Your task to perform on an android device: Open the stopwatch Image 0: 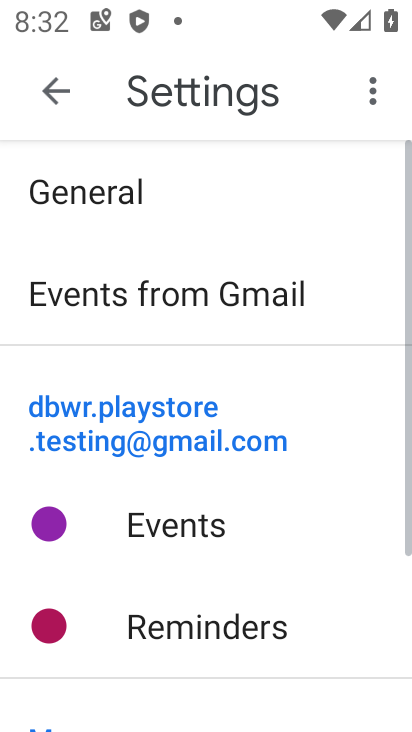
Step 0: press home button
Your task to perform on an android device: Open the stopwatch Image 1: 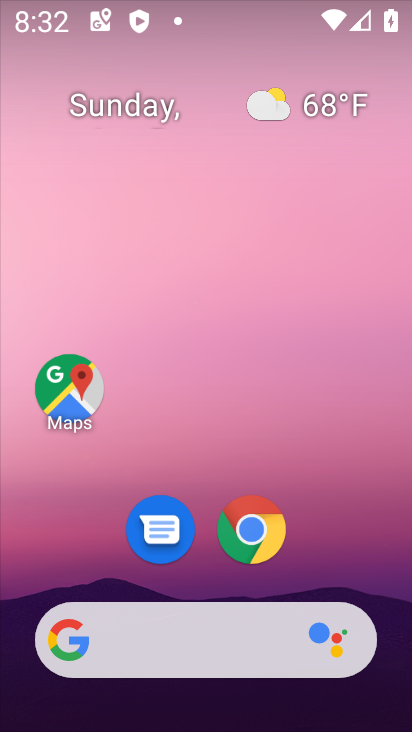
Step 1: drag from (206, 575) to (214, 92)
Your task to perform on an android device: Open the stopwatch Image 2: 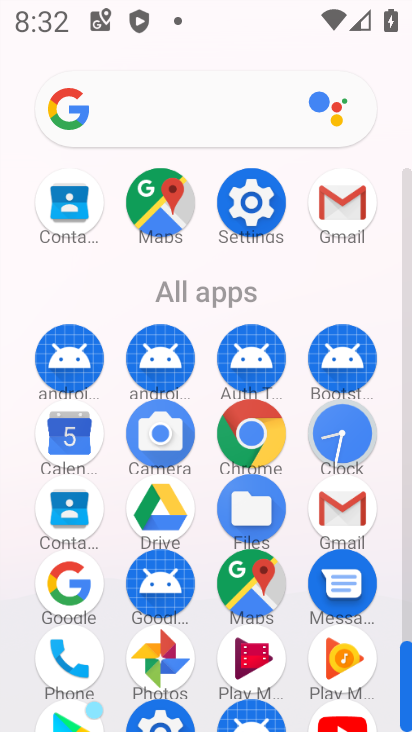
Step 2: click (339, 426)
Your task to perform on an android device: Open the stopwatch Image 3: 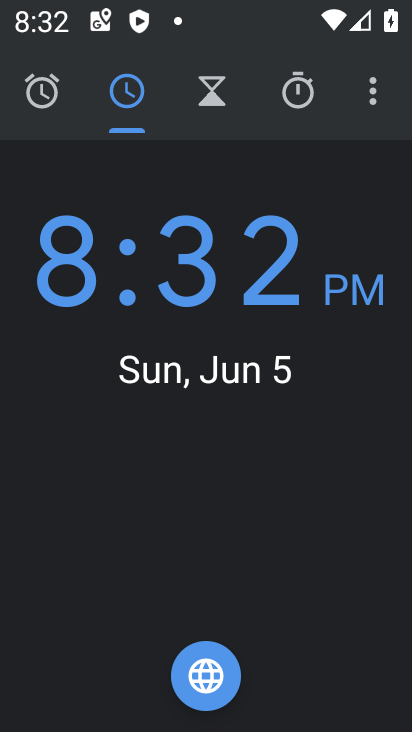
Step 3: click (296, 85)
Your task to perform on an android device: Open the stopwatch Image 4: 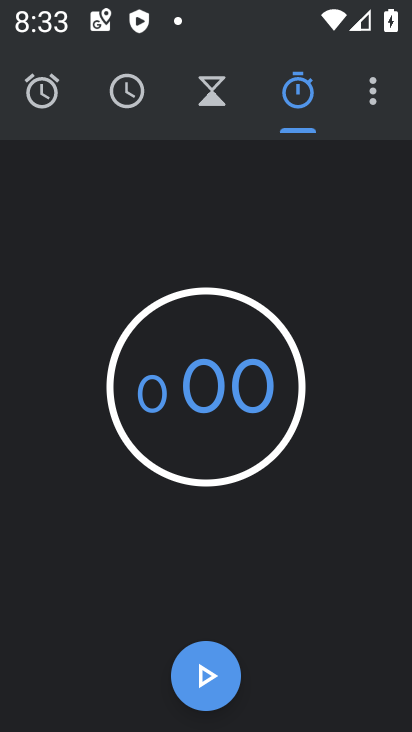
Step 4: click (204, 667)
Your task to perform on an android device: Open the stopwatch Image 5: 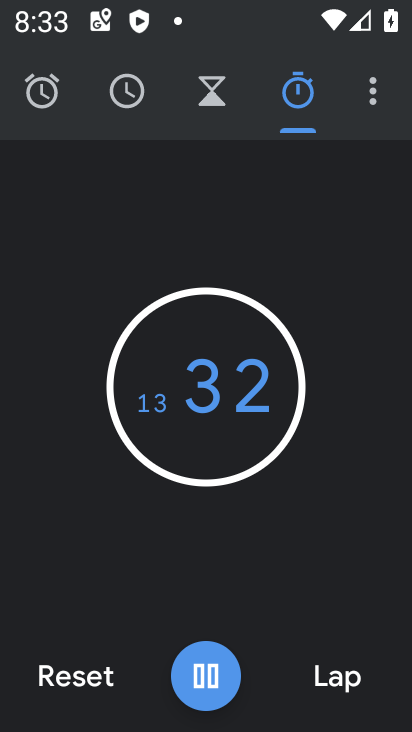
Step 5: task complete